Your task to perform on an android device: open chrome and create a bookmark for the current page Image 0: 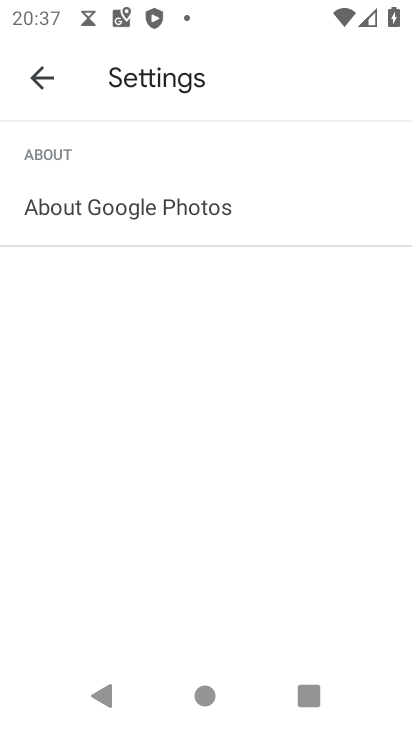
Step 0: press home button
Your task to perform on an android device: open chrome and create a bookmark for the current page Image 1: 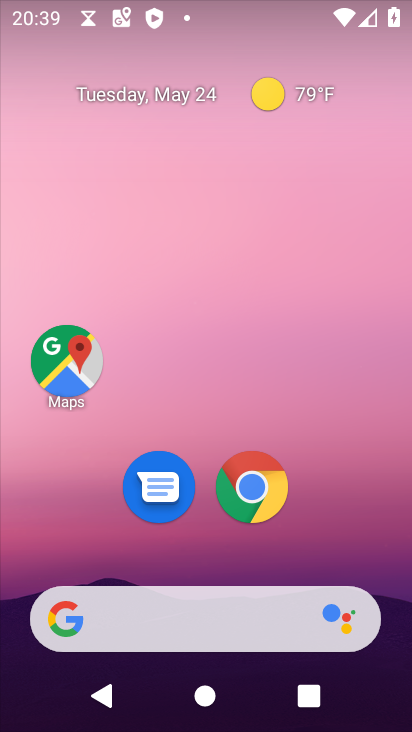
Step 1: click (253, 484)
Your task to perform on an android device: open chrome and create a bookmark for the current page Image 2: 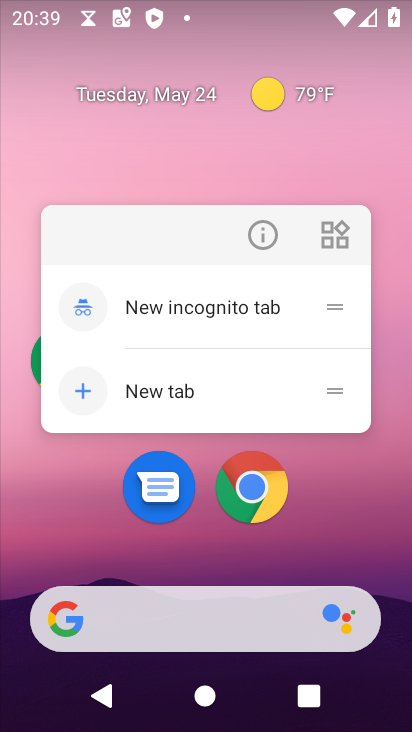
Step 2: click (265, 482)
Your task to perform on an android device: open chrome and create a bookmark for the current page Image 3: 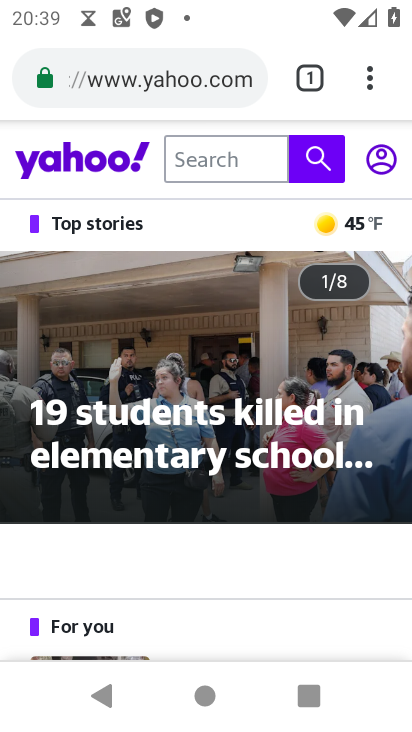
Step 3: click (374, 78)
Your task to perform on an android device: open chrome and create a bookmark for the current page Image 4: 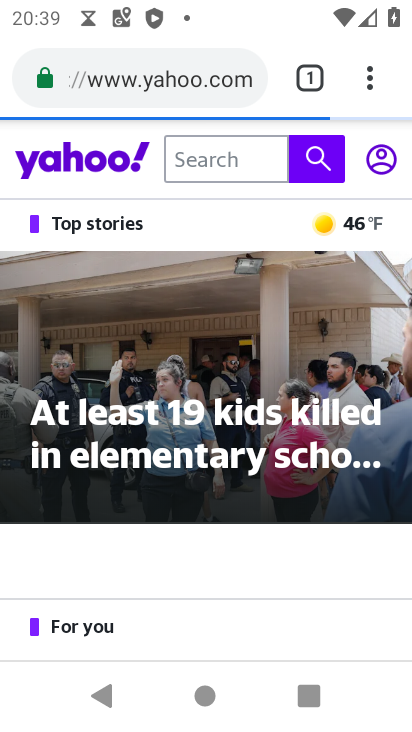
Step 4: click (369, 81)
Your task to perform on an android device: open chrome and create a bookmark for the current page Image 5: 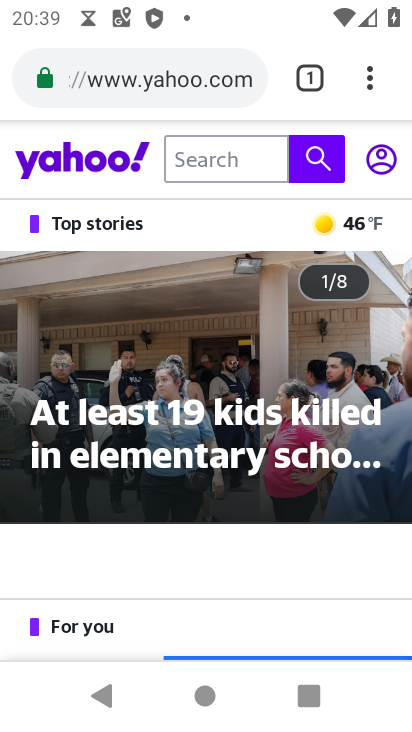
Step 5: click (315, 77)
Your task to perform on an android device: open chrome and create a bookmark for the current page Image 6: 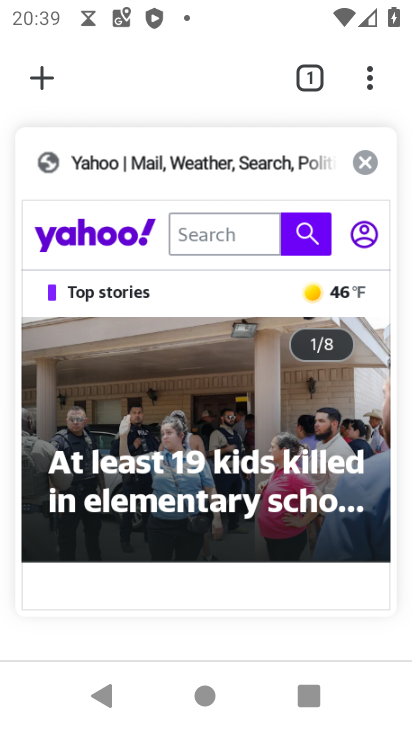
Step 6: click (370, 72)
Your task to perform on an android device: open chrome and create a bookmark for the current page Image 7: 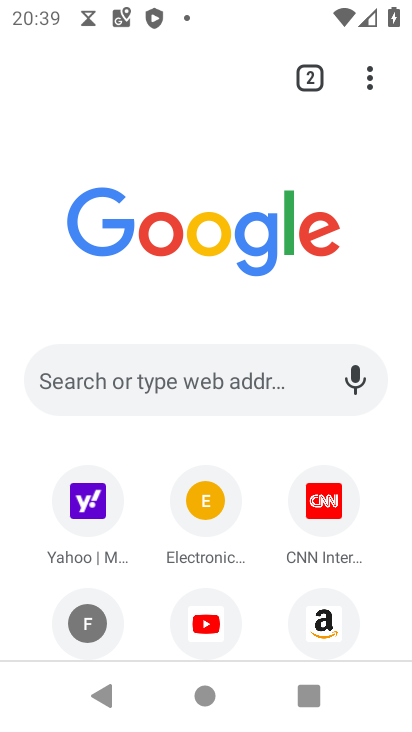
Step 7: click (314, 76)
Your task to perform on an android device: open chrome and create a bookmark for the current page Image 8: 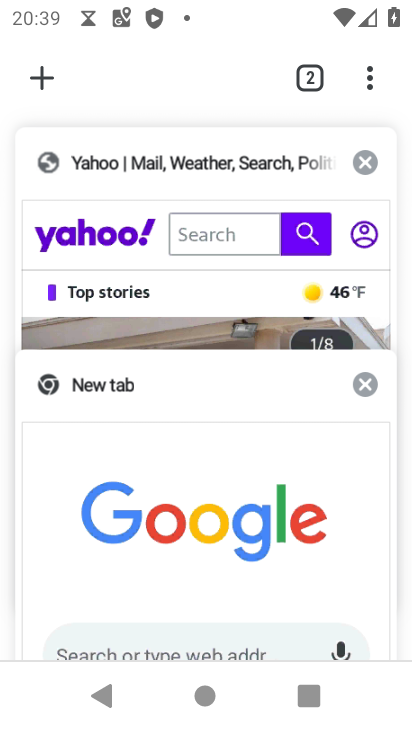
Step 8: drag from (158, 491) to (215, 107)
Your task to perform on an android device: open chrome and create a bookmark for the current page Image 9: 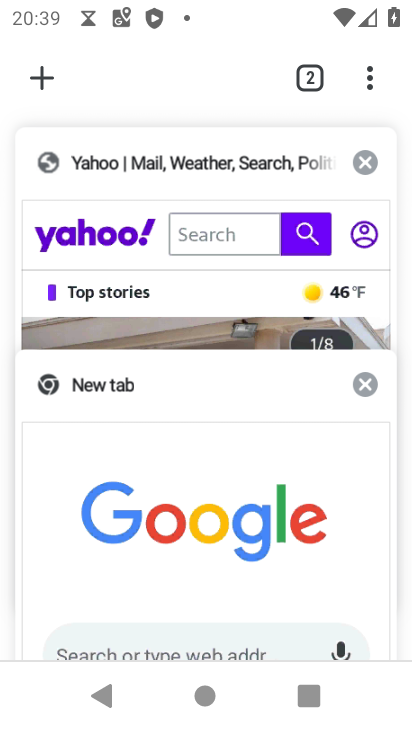
Step 9: click (176, 238)
Your task to perform on an android device: open chrome and create a bookmark for the current page Image 10: 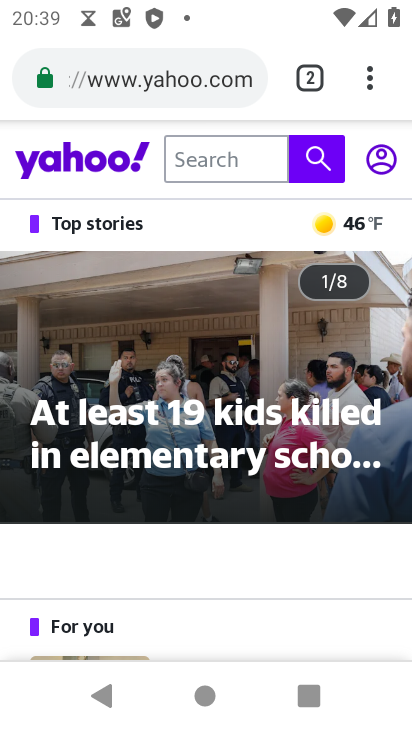
Step 10: click (367, 77)
Your task to perform on an android device: open chrome and create a bookmark for the current page Image 11: 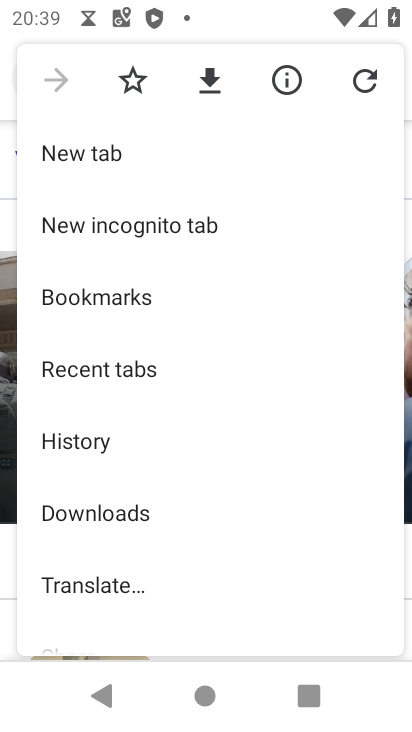
Step 11: click (134, 79)
Your task to perform on an android device: open chrome and create a bookmark for the current page Image 12: 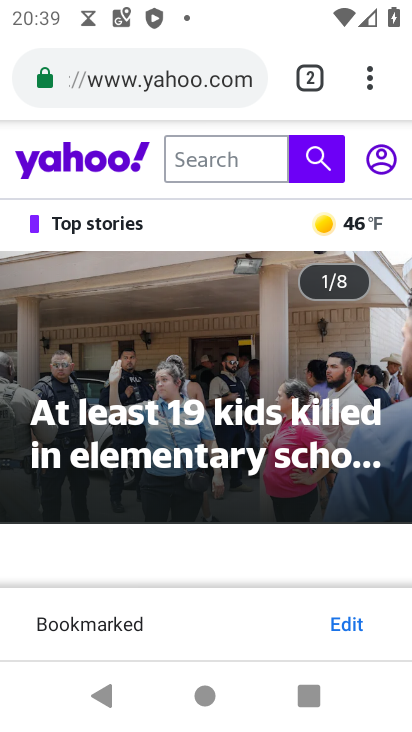
Step 12: task complete